Your task to perform on an android device: Open wifi settings Image 0: 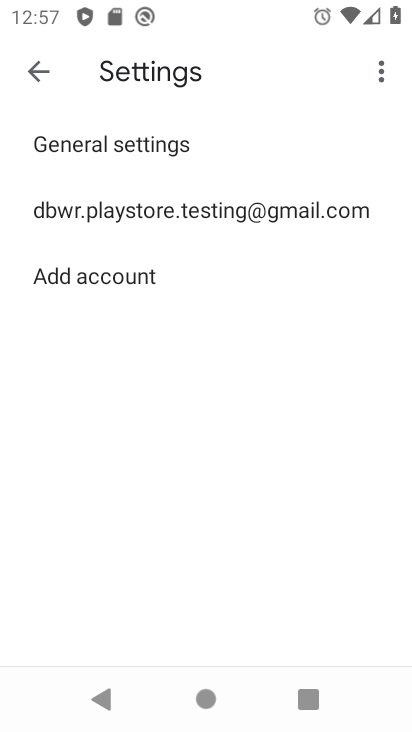
Step 0: press back button
Your task to perform on an android device: Open wifi settings Image 1: 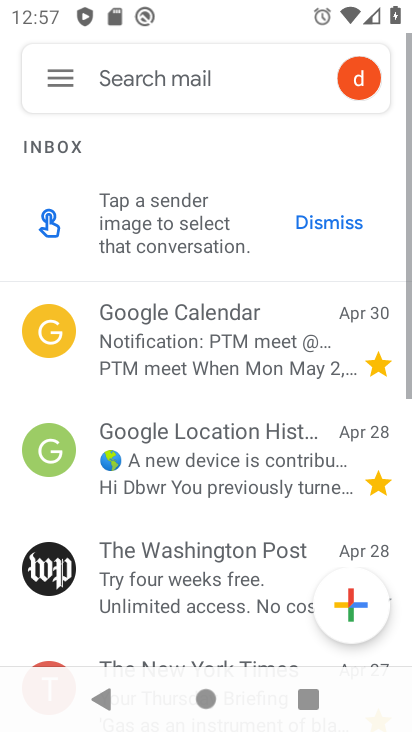
Step 1: press home button
Your task to perform on an android device: Open wifi settings Image 2: 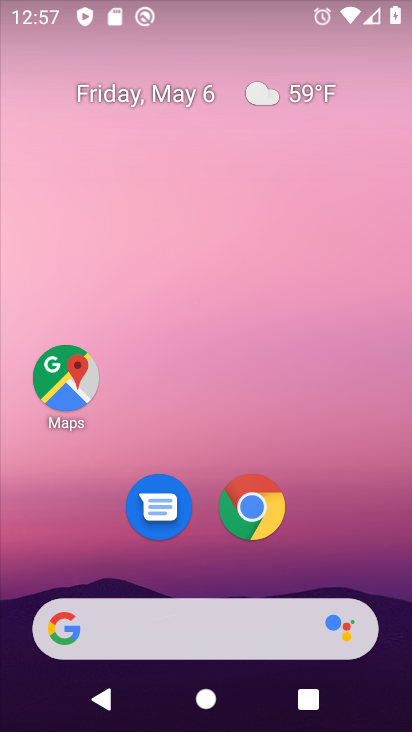
Step 2: drag from (164, 617) to (264, 62)
Your task to perform on an android device: Open wifi settings Image 3: 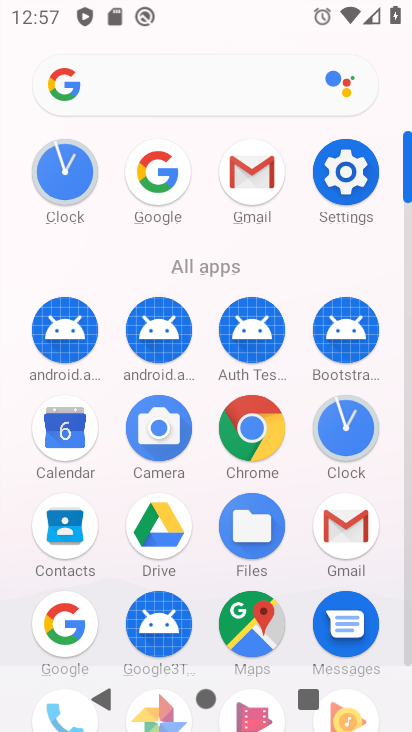
Step 3: drag from (180, 659) to (270, 233)
Your task to perform on an android device: Open wifi settings Image 4: 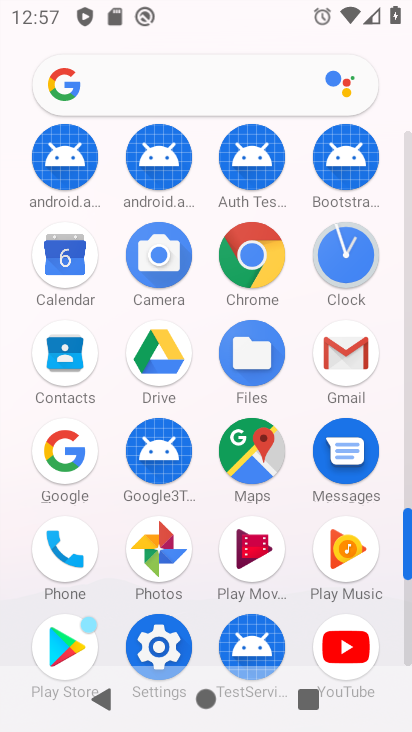
Step 4: click (155, 647)
Your task to perform on an android device: Open wifi settings Image 5: 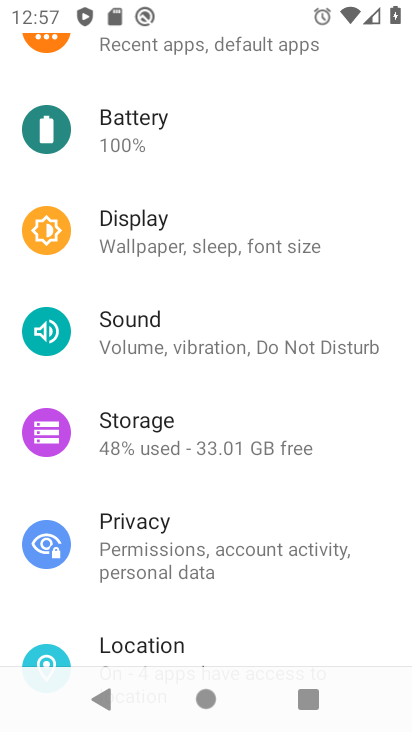
Step 5: drag from (231, 147) to (203, 514)
Your task to perform on an android device: Open wifi settings Image 6: 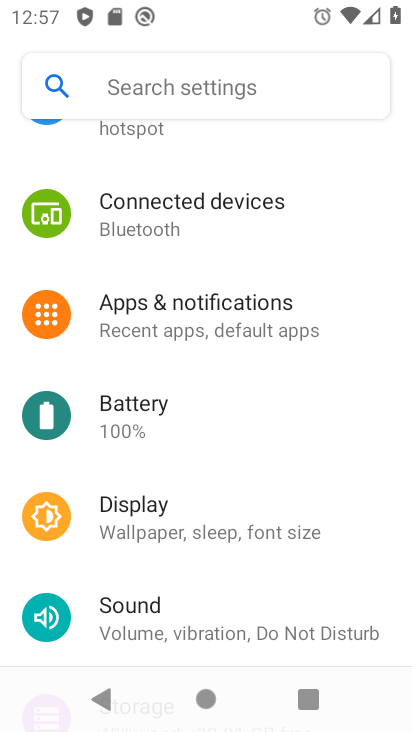
Step 6: drag from (245, 212) to (182, 530)
Your task to perform on an android device: Open wifi settings Image 7: 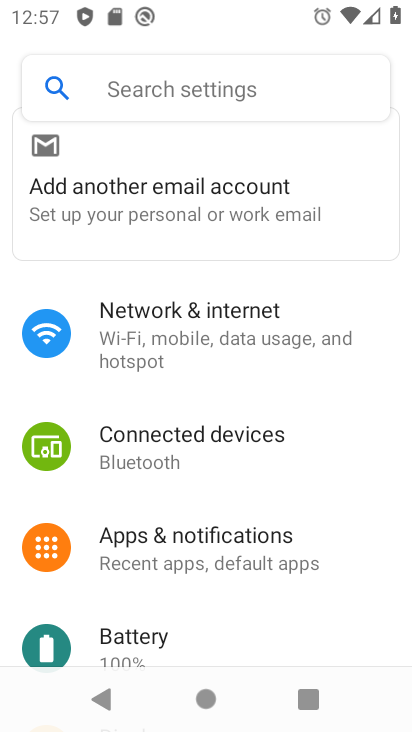
Step 7: click (239, 348)
Your task to perform on an android device: Open wifi settings Image 8: 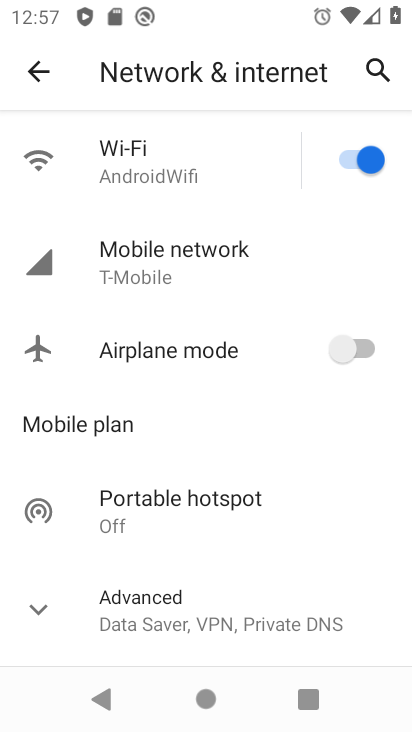
Step 8: click (167, 148)
Your task to perform on an android device: Open wifi settings Image 9: 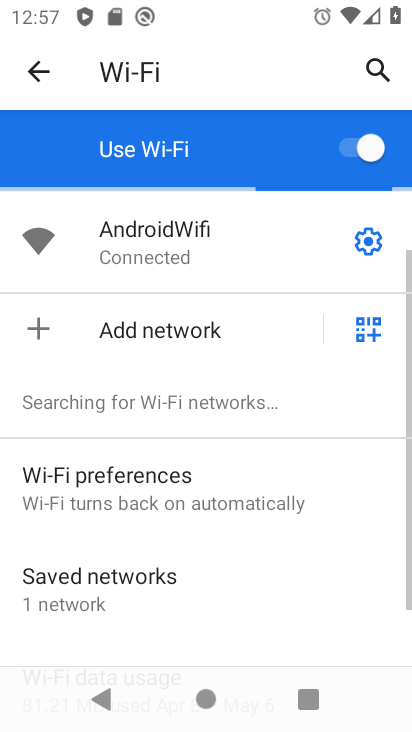
Step 9: task complete